Your task to perform on an android device: turn off notifications in google photos Image 0: 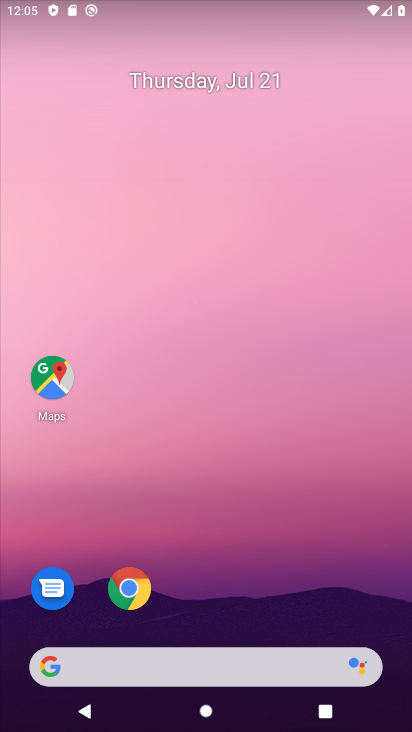
Step 0: drag from (223, 643) to (281, 9)
Your task to perform on an android device: turn off notifications in google photos Image 1: 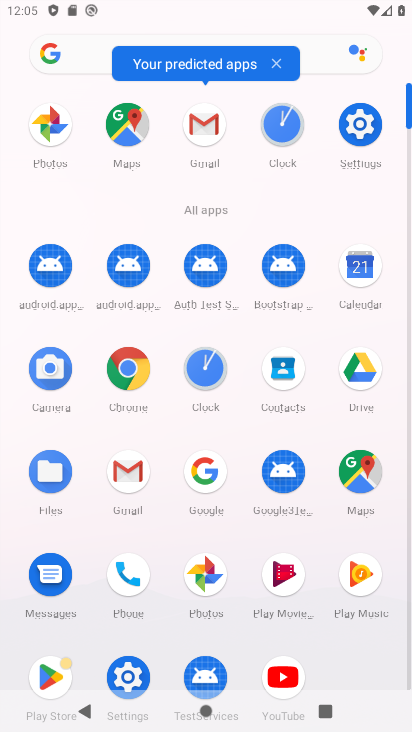
Step 1: click (205, 582)
Your task to perform on an android device: turn off notifications in google photos Image 2: 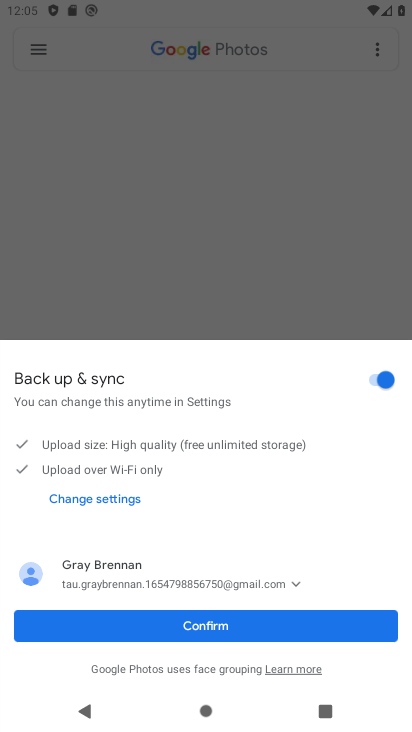
Step 2: click (207, 630)
Your task to perform on an android device: turn off notifications in google photos Image 3: 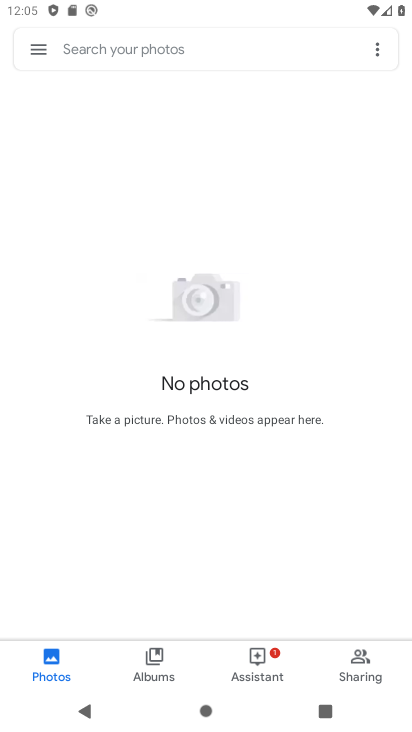
Step 3: click (49, 60)
Your task to perform on an android device: turn off notifications in google photos Image 4: 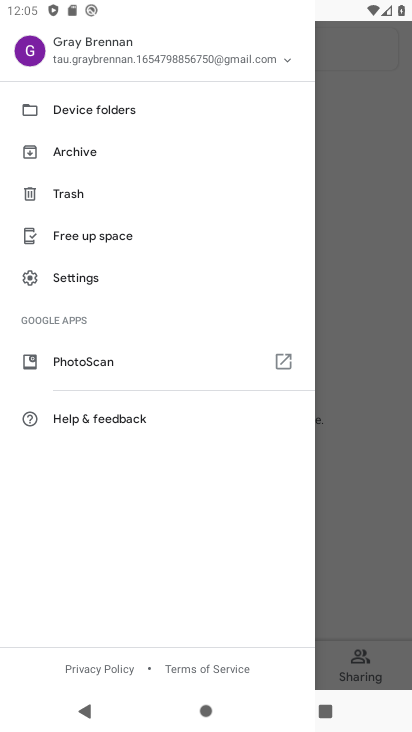
Step 4: click (70, 272)
Your task to perform on an android device: turn off notifications in google photos Image 5: 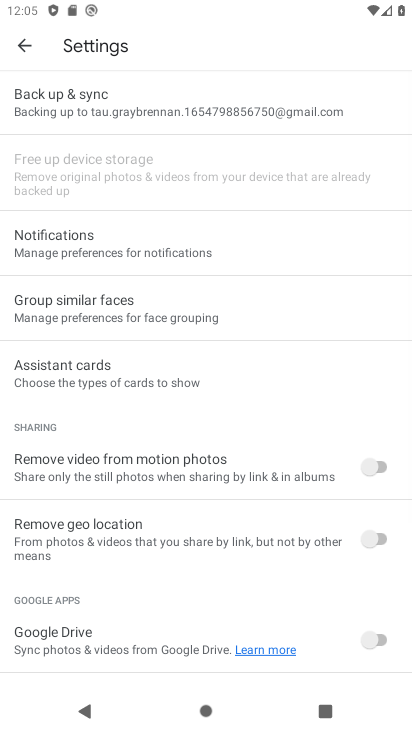
Step 5: click (98, 247)
Your task to perform on an android device: turn off notifications in google photos Image 6: 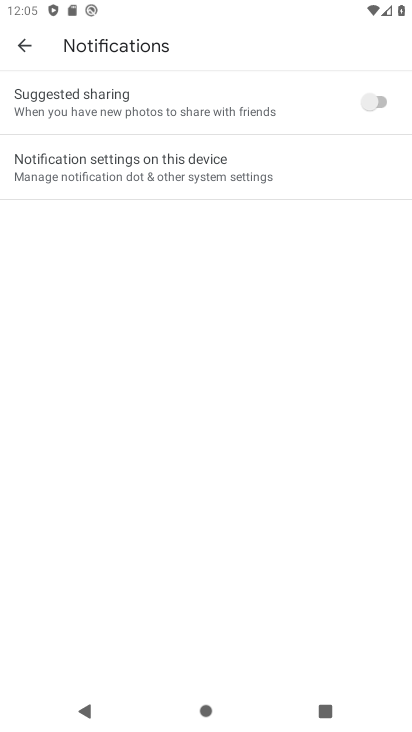
Step 6: click (187, 161)
Your task to perform on an android device: turn off notifications in google photos Image 7: 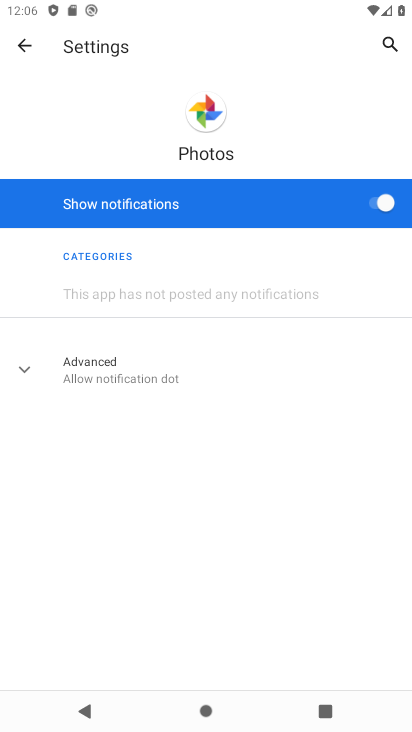
Step 7: click (332, 211)
Your task to perform on an android device: turn off notifications in google photos Image 8: 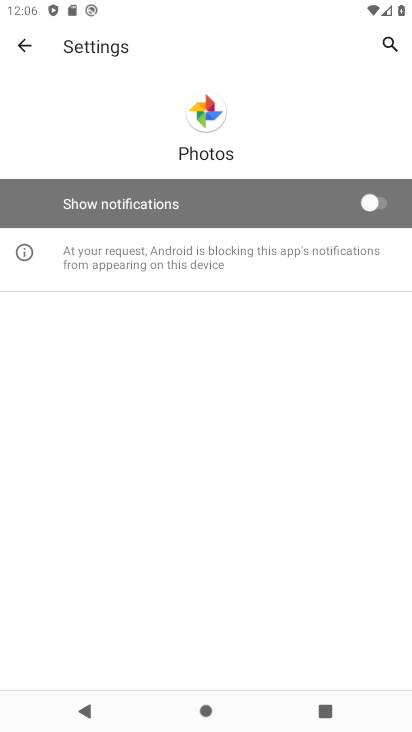
Step 8: task complete